Your task to perform on an android device: turn notification dots on Image 0: 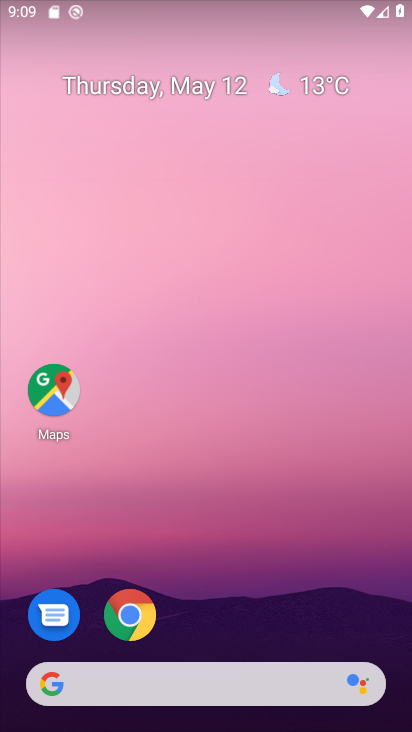
Step 0: drag from (260, 563) to (70, 11)
Your task to perform on an android device: turn notification dots on Image 1: 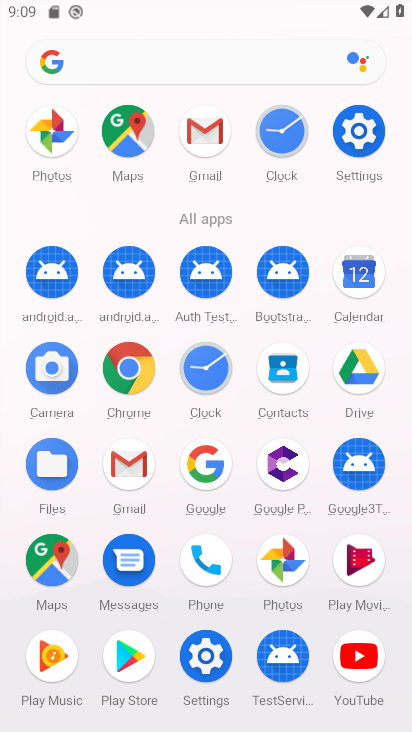
Step 1: click (358, 132)
Your task to perform on an android device: turn notification dots on Image 2: 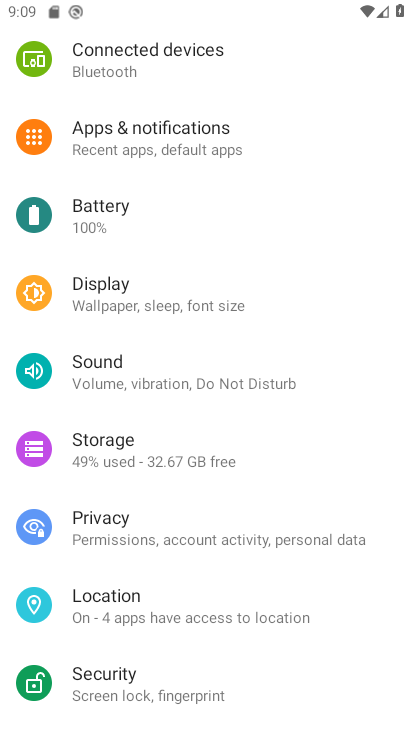
Step 2: click (150, 122)
Your task to perform on an android device: turn notification dots on Image 3: 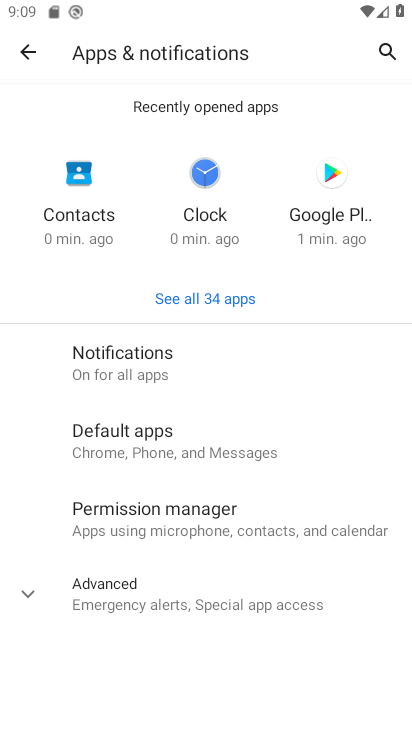
Step 3: click (123, 360)
Your task to perform on an android device: turn notification dots on Image 4: 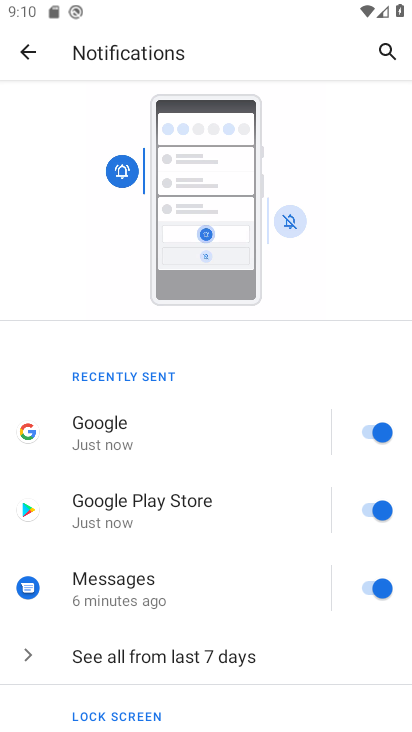
Step 4: drag from (249, 649) to (197, 379)
Your task to perform on an android device: turn notification dots on Image 5: 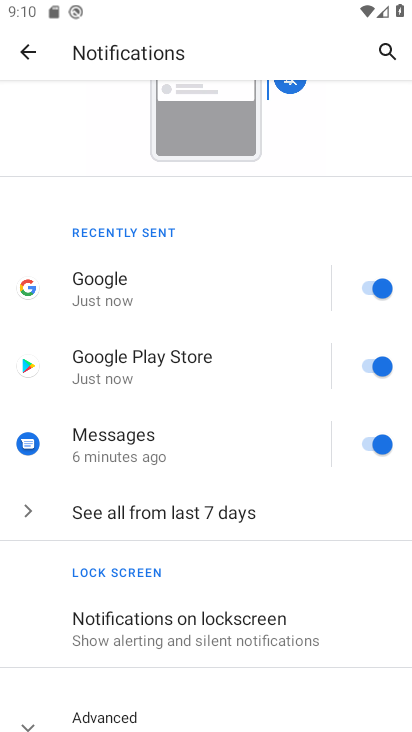
Step 5: drag from (209, 555) to (170, 171)
Your task to perform on an android device: turn notification dots on Image 6: 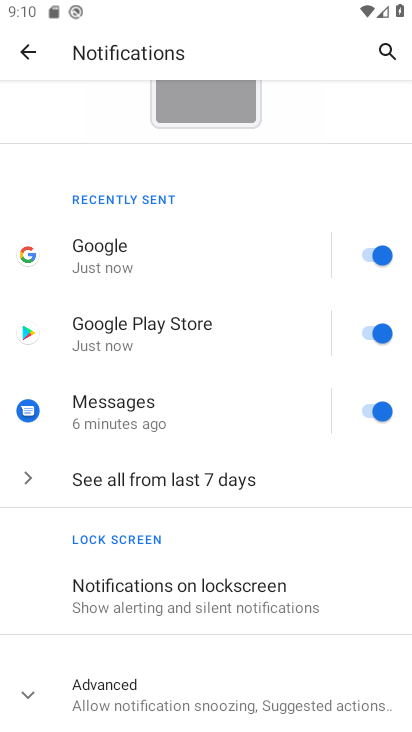
Step 6: drag from (181, 636) to (146, 458)
Your task to perform on an android device: turn notification dots on Image 7: 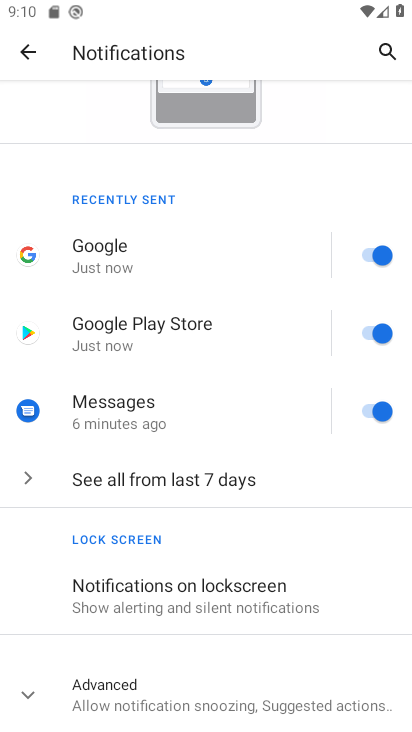
Step 7: click (74, 687)
Your task to perform on an android device: turn notification dots on Image 8: 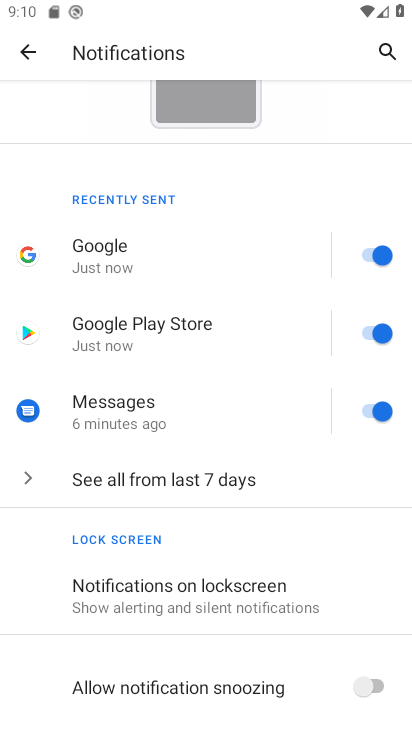
Step 8: task complete